Your task to perform on an android device: Go to Wikipedia Image 0: 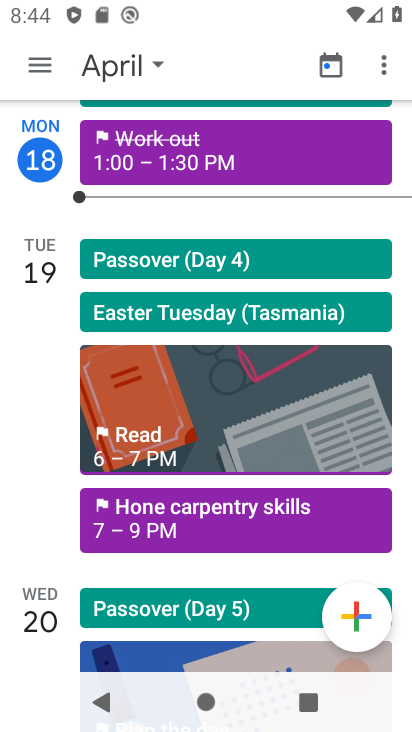
Step 0: press home button
Your task to perform on an android device: Go to Wikipedia Image 1: 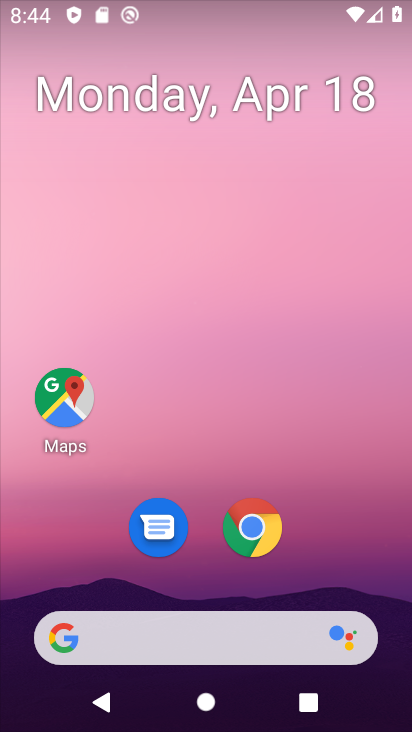
Step 1: drag from (309, 571) to (305, 74)
Your task to perform on an android device: Go to Wikipedia Image 2: 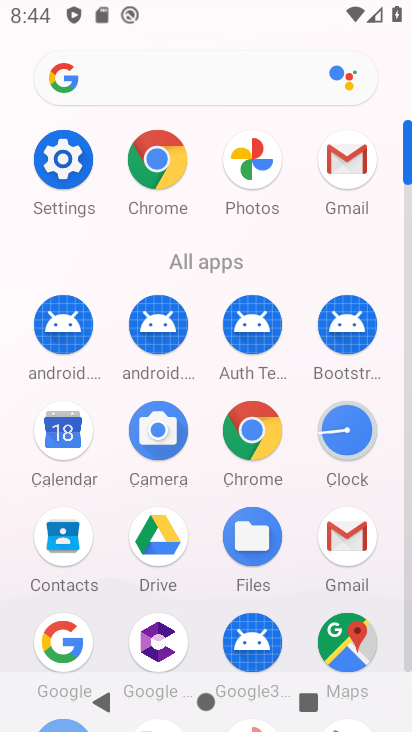
Step 2: click (263, 425)
Your task to perform on an android device: Go to Wikipedia Image 3: 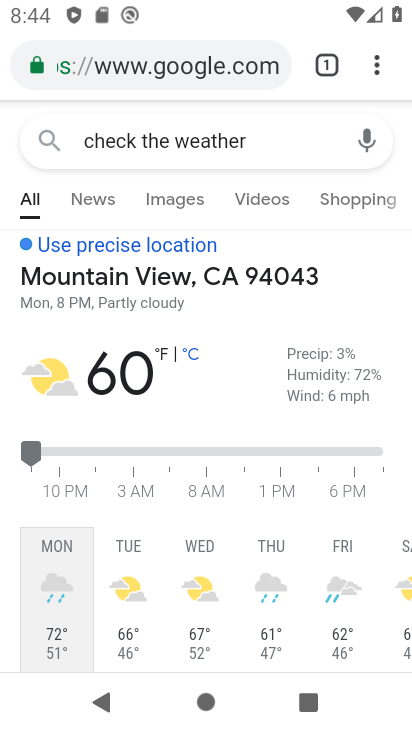
Step 3: drag from (373, 65) to (233, 134)
Your task to perform on an android device: Go to Wikipedia Image 4: 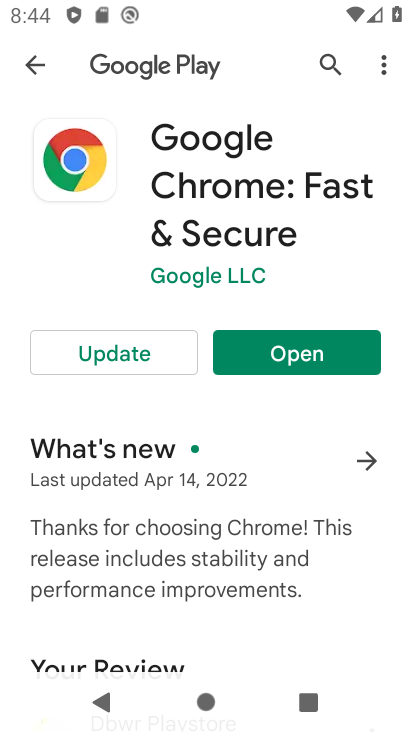
Step 4: click (157, 348)
Your task to perform on an android device: Go to Wikipedia Image 5: 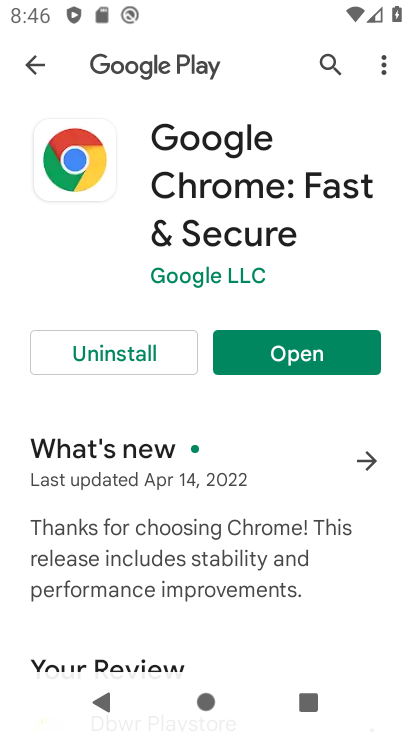
Step 5: click (326, 355)
Your task to perform on an android device: Go to Wikipedia Image 6: 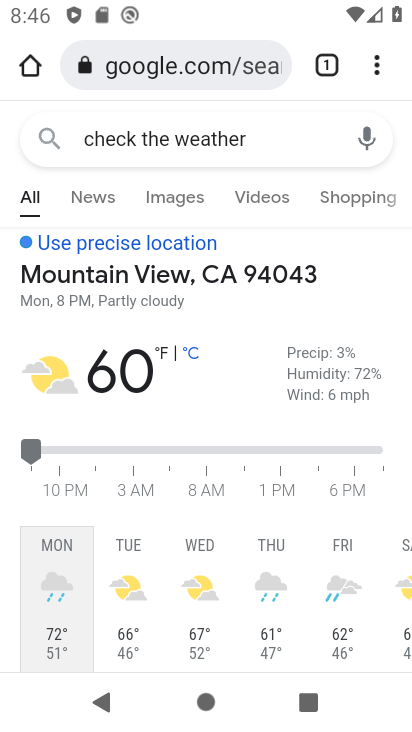
Step 6: drag from (374, 68) to (194, 129)
Your task to perform on an android device: Go to Wikipedia Image 7: 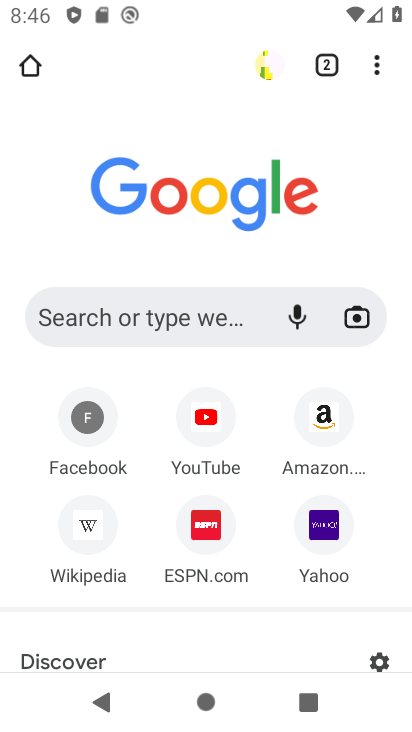
Step 7: click (96, 527)
Your task to perform on an android device: Go to Wikipedia Image 8: 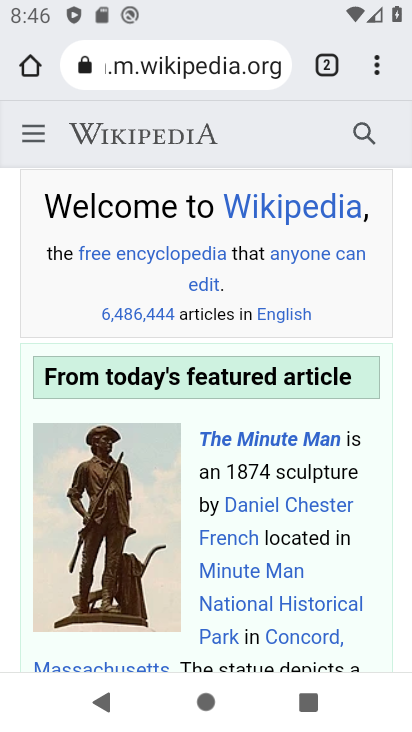
Step 8: task complete